Your task to perform on an android device: change timer sound Image 0: 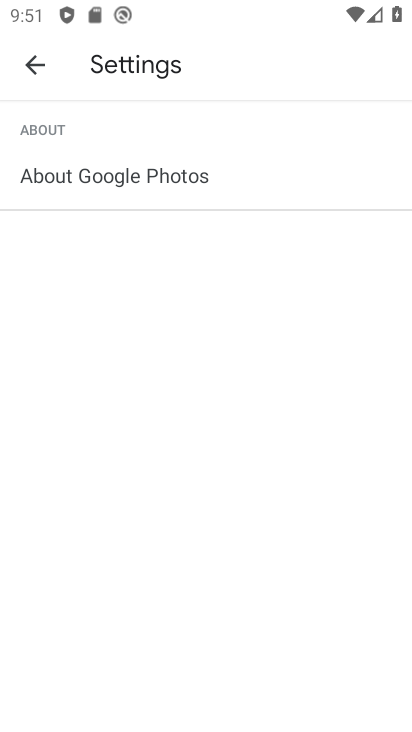
Step 0: press home button
Your task to perform on an android device: change timer sound Image 1: 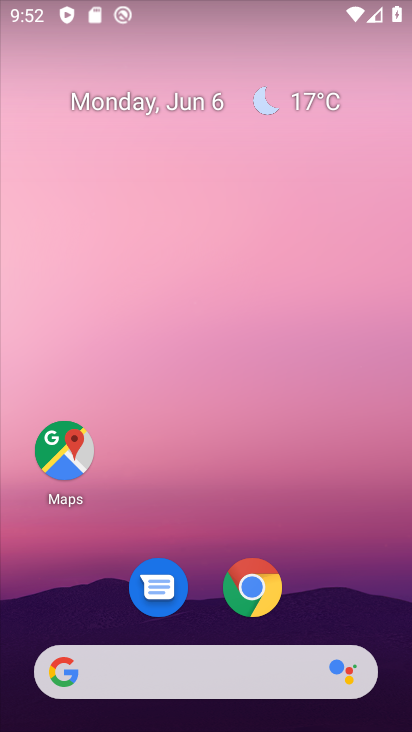
Step 1: drag from (371, 570) to (328, 201)
Your task to perform on an android device: change timer sound Image 2: 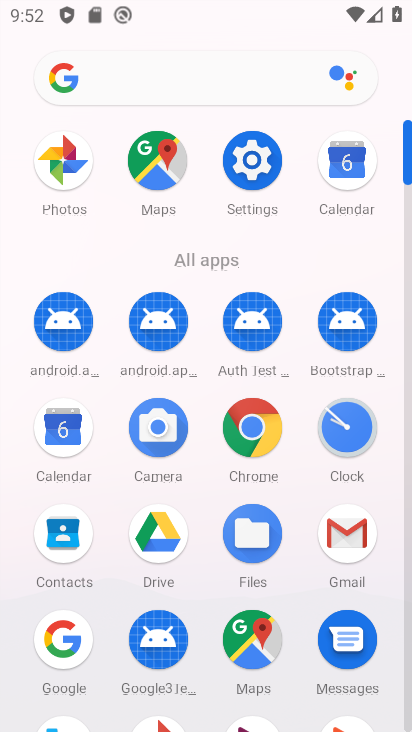
Step 2: click (342, 460)
Your task to perform on an android device: change timer sound Image 3: 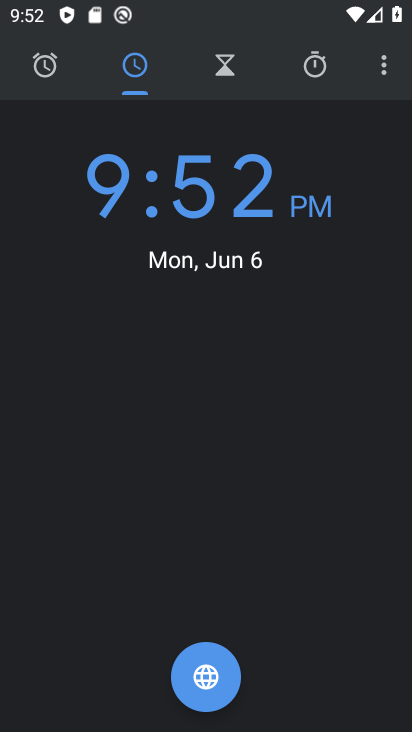
Step 3: click (375, 69)
Your task to perform on an android device: change timer sound Image 4: 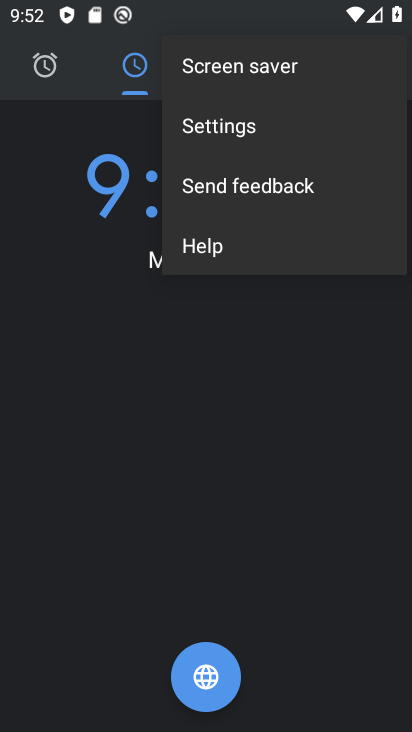
Step 4: click (292, 120)
Your task to perform on an android device: change timer sound Image 5: 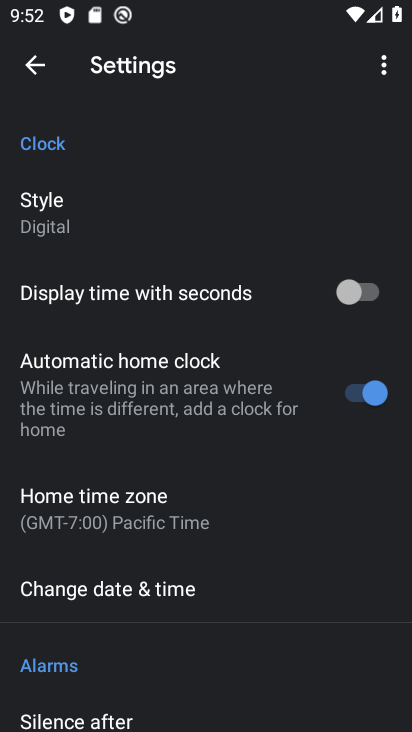
Step 5: drag from (210, 656) to (148, 213)
Your task to perform on an android device: change timer sound Image 6: 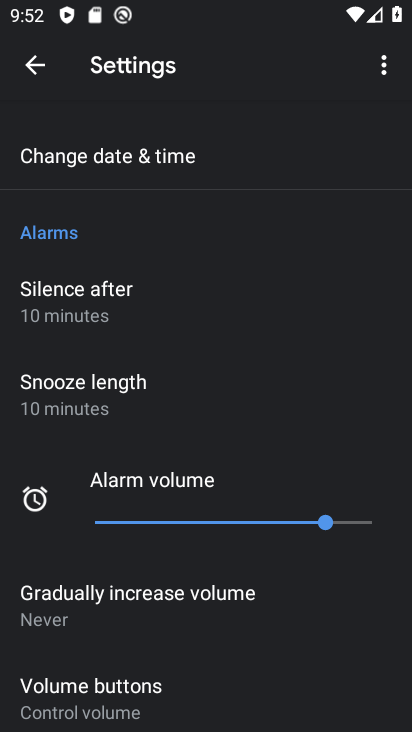
Step 6: drag from (178, 524) to (148, 311)
Your task to perform on an android device: change timer sound Image 7: 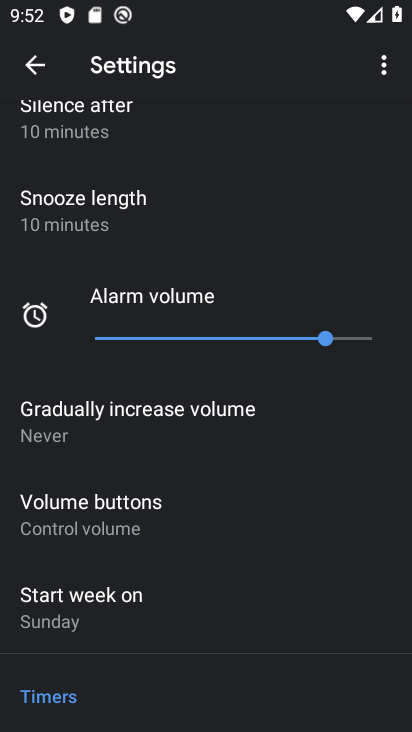
Step 7: drag from (162, 649) to (80, 346)
Your task to perform on an android device: change timer sound Image 8: 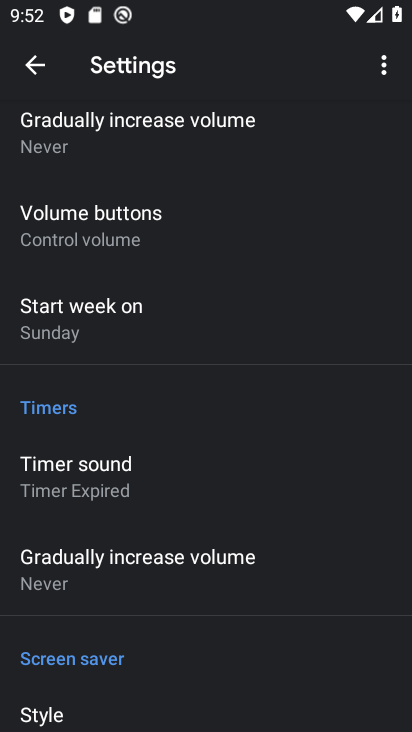
Step 8: click (118, 465)
Your task to perform on an android device: change timer sound Image 9: 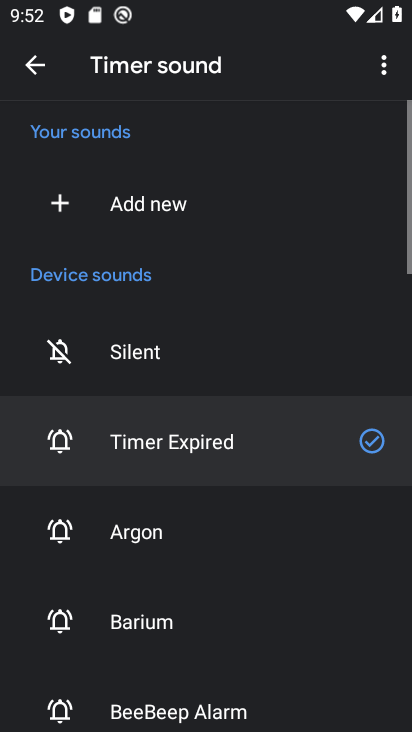
Step 9: click (137, 542)
Your task to perform on an android device: change timer sound Image 10: 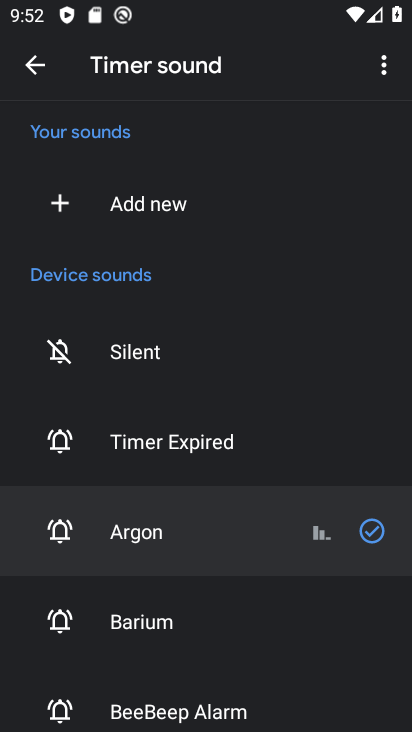
Step 10: task complete